Your task to perform on an android device: open wifi settings Image 0: 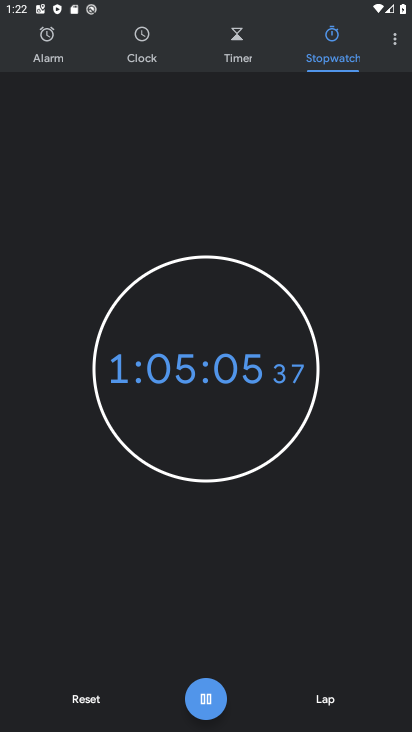
Step 0: press home button
Your task to perform on an android device: open wifi settings Image 1: 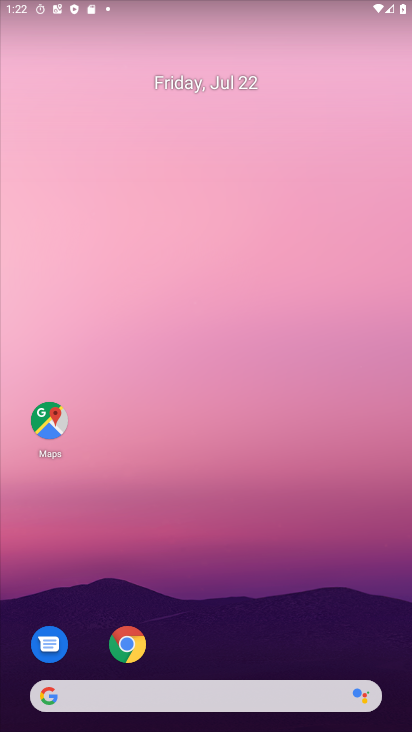
Step 1: drag from (209, 686) to (132, 354)
Your task to perform on an android device: open wifi settings Image 2: 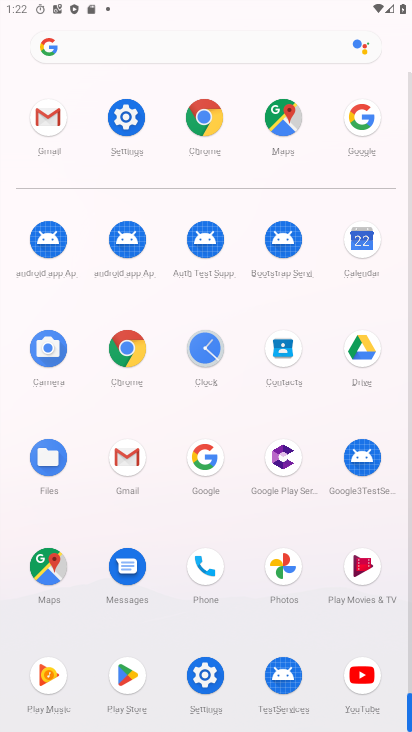
Step 2: click (123, 135)
Your task to perform on an android device: open wifi settings Image 3: 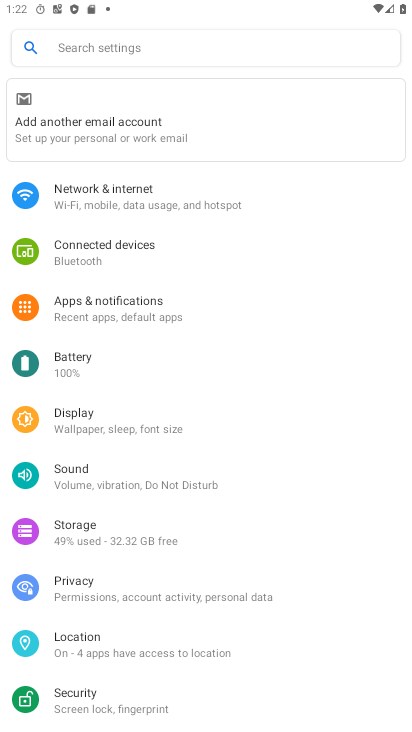
Step 3: click (150, 202)
Your task to perform on an android device: open wifi settings Image 4: 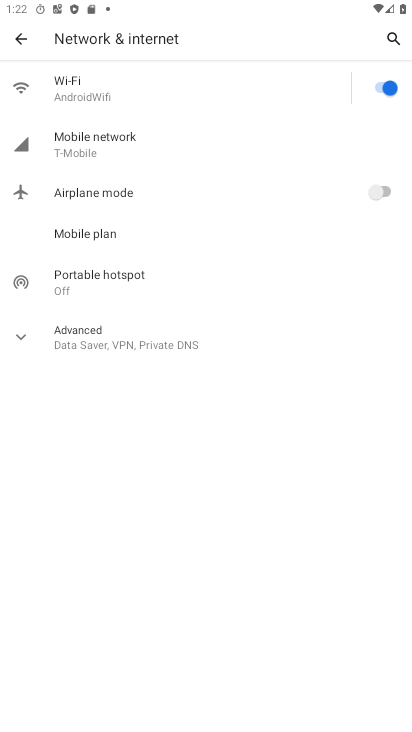
Step 4: click (156, 91)
Your task to perform on an android device: open wifi settings Image 5: 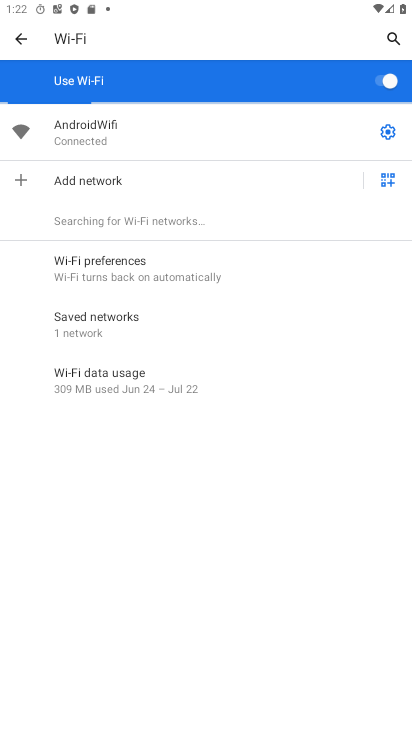
Step 5: task complete